Your task to perform on an android device: create a new album in the google photos Image 0: 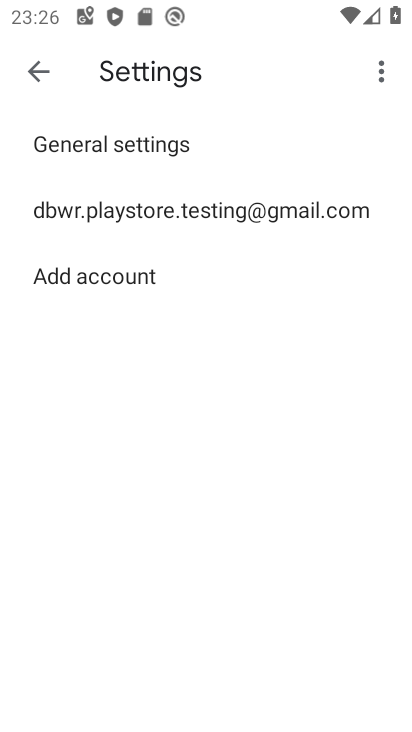
Step 0: press home button
Your task to perform on an android device: create a new album in the google photos Image 1: 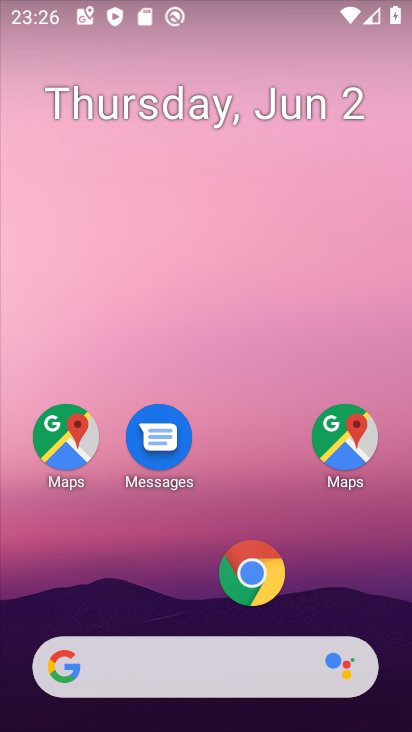
Step 1: drag from (141, 560) to (223, 128)
Your task to perform on an android device: create a new album in the google photos Image 2: 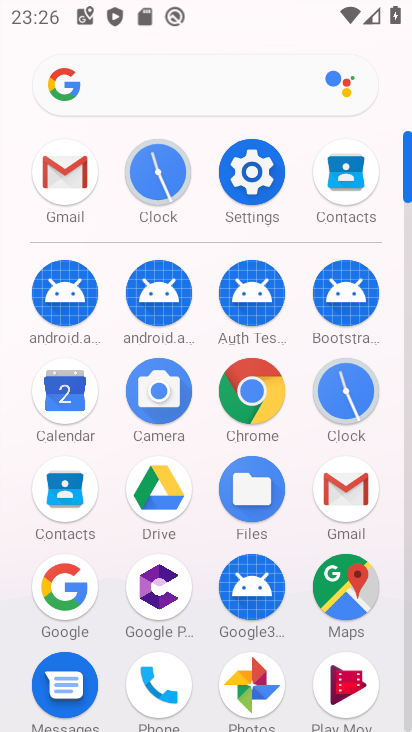
Step 2: click (258, 684)
Your task to perform on an android device: create a new album in the google photos Image 3: 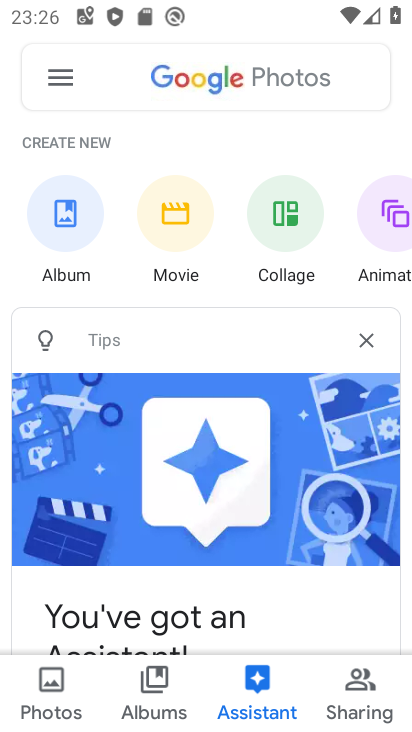
Step 3: click (46, 694)
Your task to perform on an android device: create a new album in the google photos Image 4: 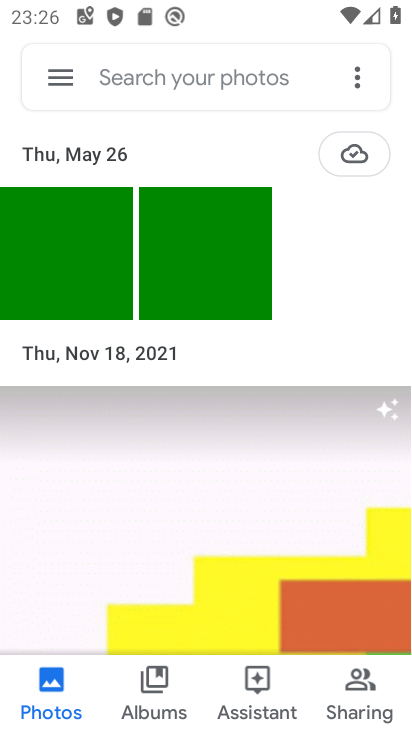
Step 4: click (182, 514)
Your task to perform on an android device: create a new album in the google photos Image 5: 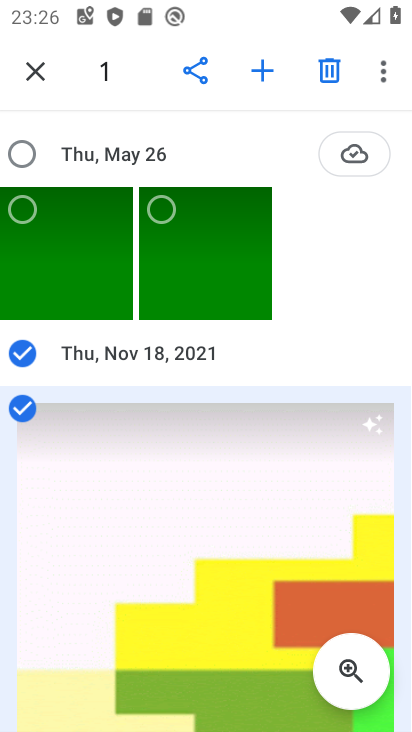
Step 5: click (157, 216)
Your task to perform on an android device: create a new album in the google photos Image 6: 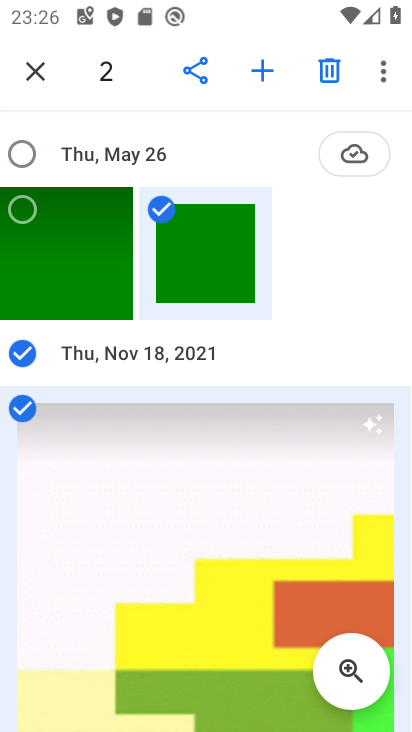
Step 6: click (260, 53)
Your task to perform on an android device: create a new album in the google photos Image 7: 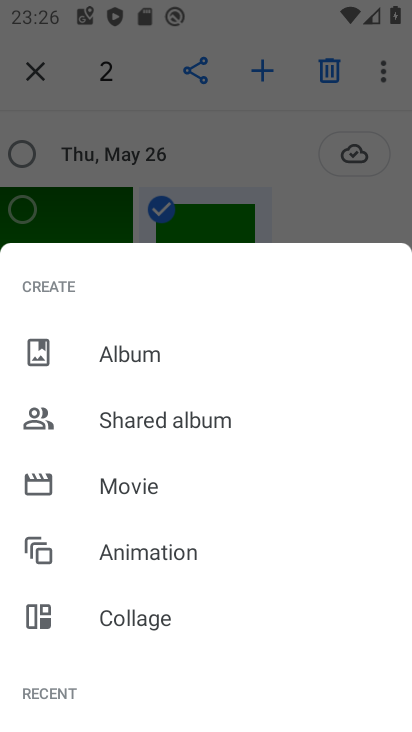
Step 7: click (218, 347)
Your task to perform on an android device: create a new album in the google photos Image 8: 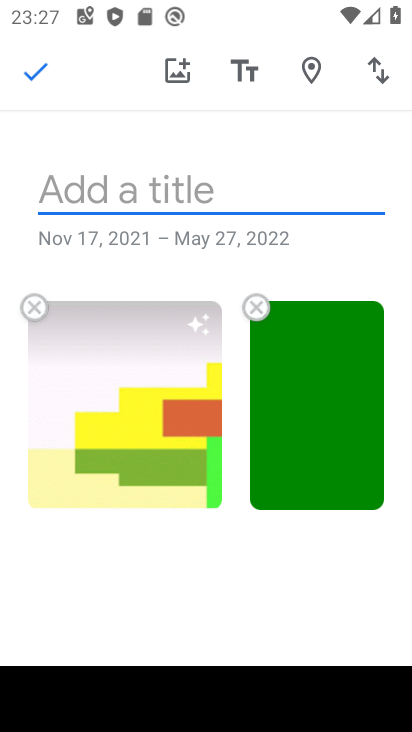
Step 8: type "ojhjofrjh"
Your task to perform on an android device: create a new album in the google photos Image 9: 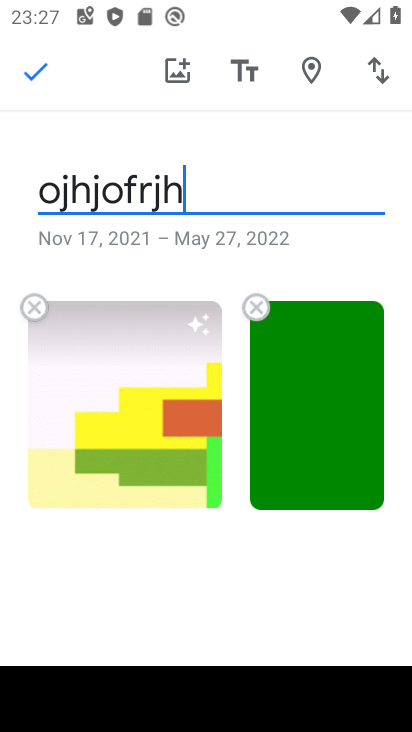
Step 9: click (31, 62)
Your task to perform on an android device: create a new album in the google photos Image 10: 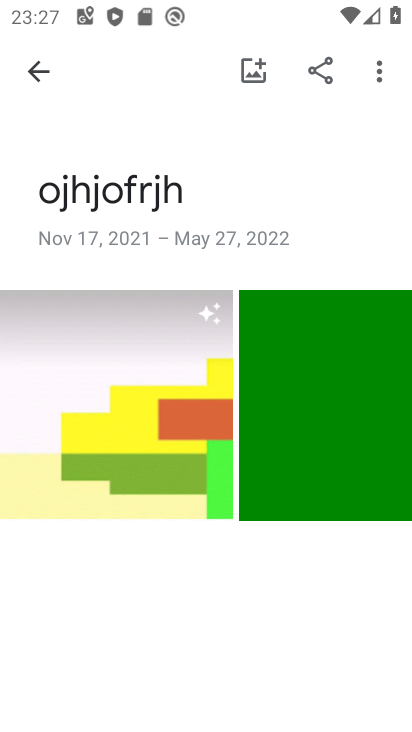
Step 10: task complete